Your task to perform on an android device: set an alarm Image 0: 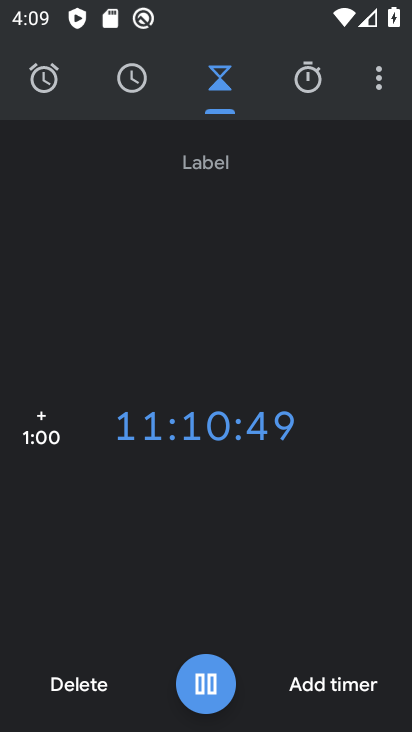
Step 0: click (50, 78)
Your task to perform on an android device: set an alarm Image 1: 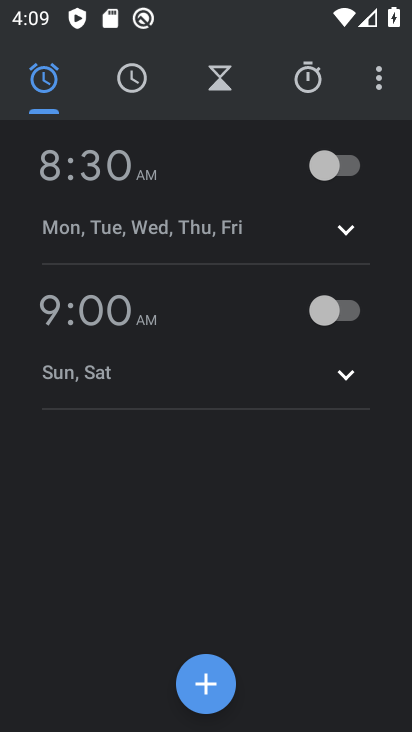
Step 1: click (343, 166)
Your task to perform on an android device: set an alarm Image 2: 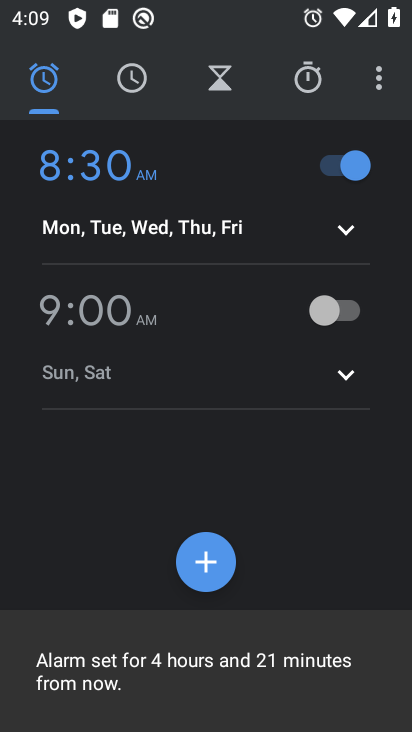
Step 2: task complete